Your task to perform on an android device: find photos in the google photos app Image 0: 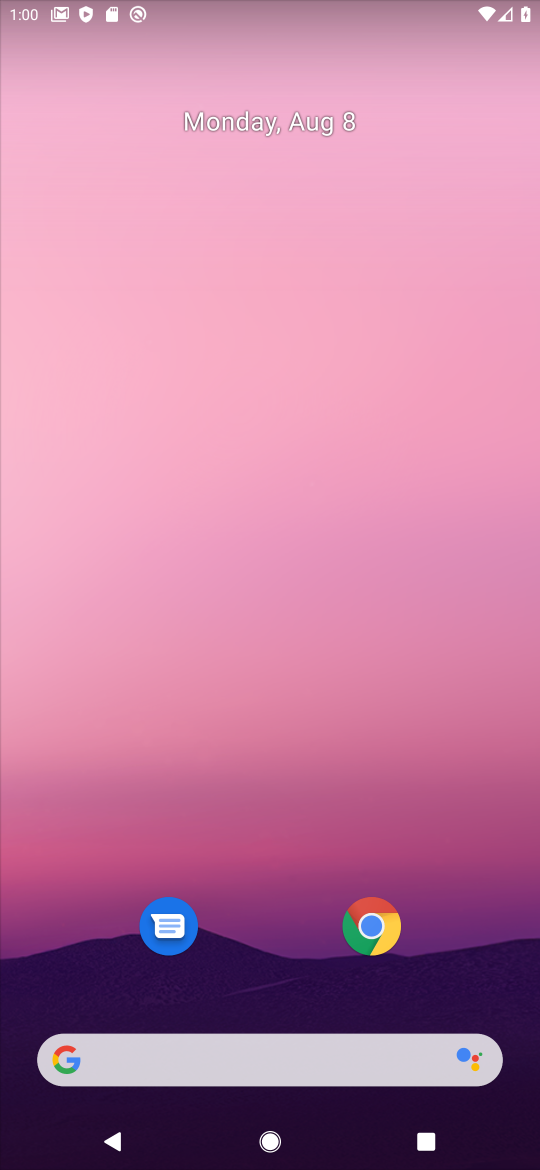
Step 0: drag from (139, 969) to (302, 54)
Your task to perform on an android device: find photos in the google photos app Image 1: 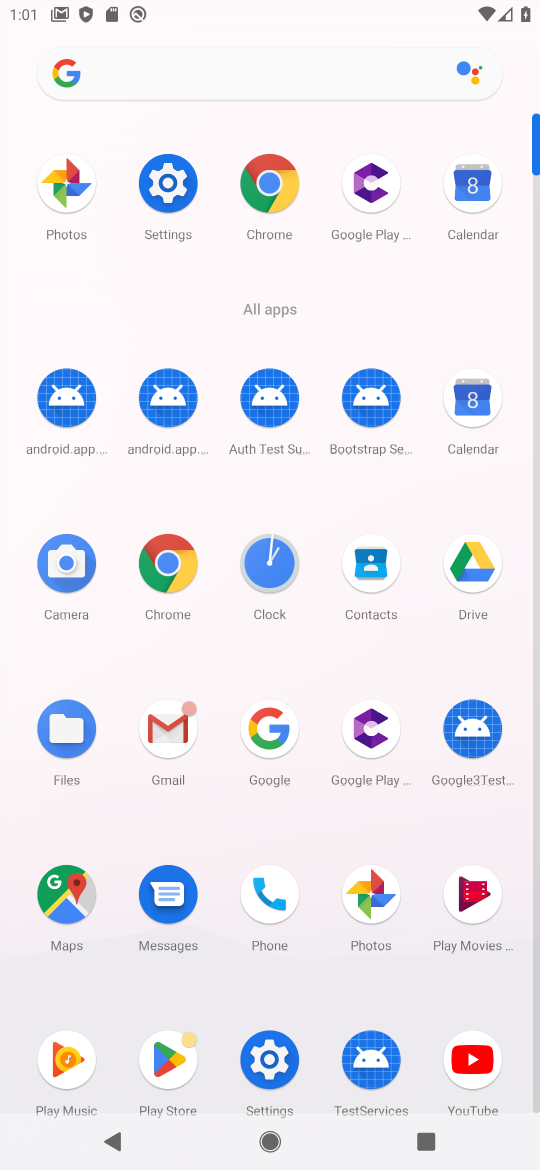
Step 1: click (376, 882)
Your task to perform on an android device: find photos in the google photos app Image 2: 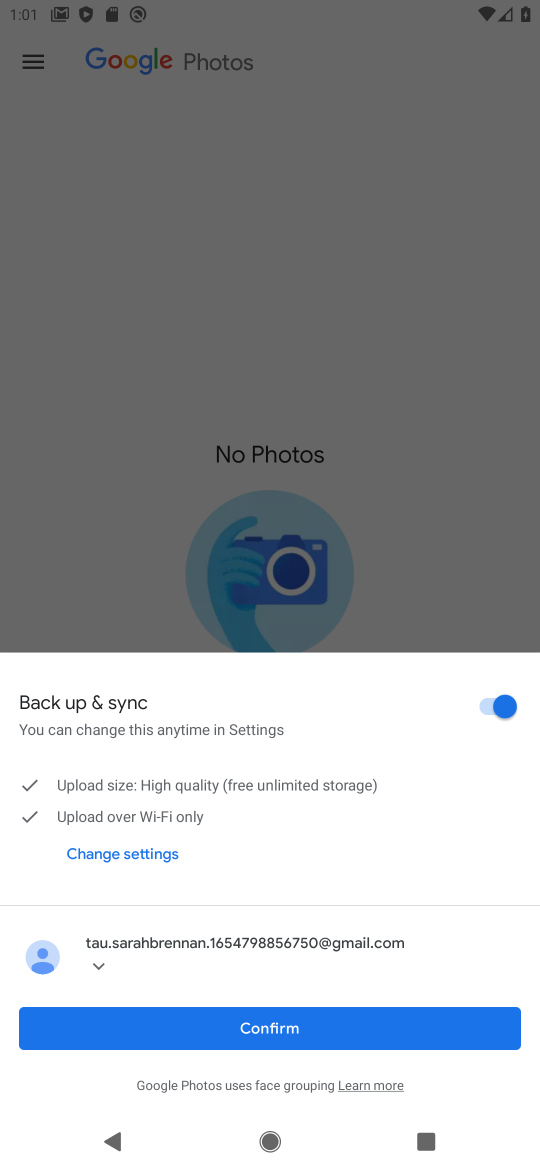
Step 2: click (269, 1025)
Your task to perform on an android device: find photos in the google photos app Image 3: 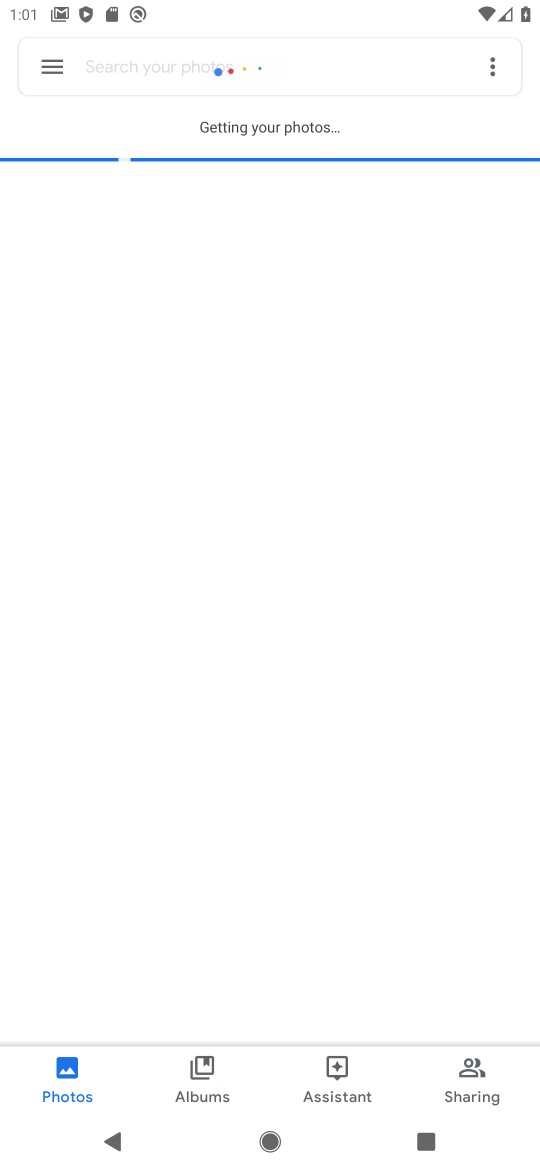
Step 3: click (219, 1043)
Your task to perform on an android device: find photos in the google photos app Image 4: 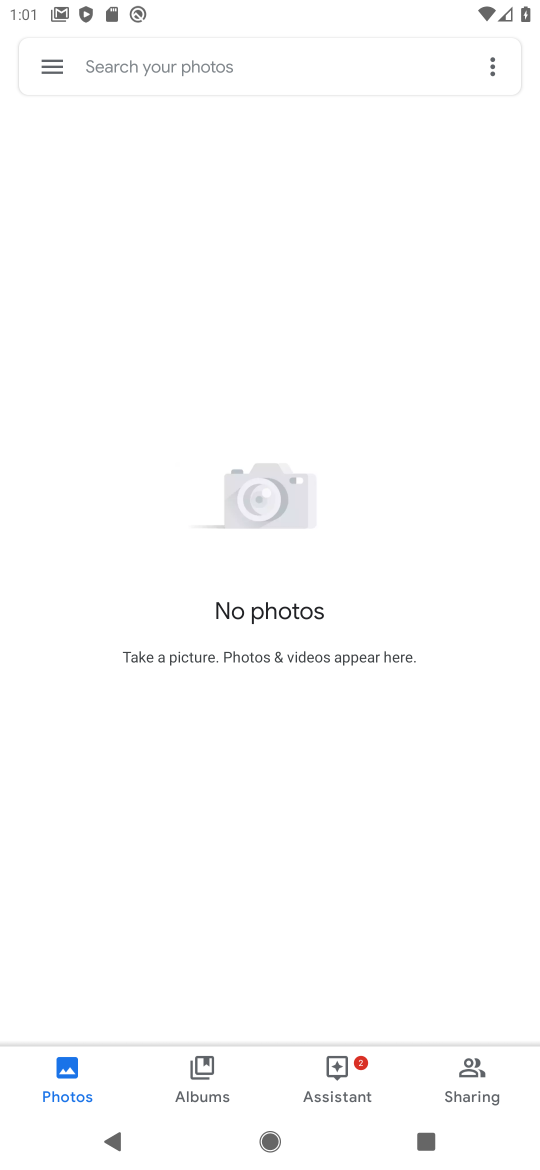
Step 4: task complete